Your task to perform on an android device: Open wifi settings Image 0: 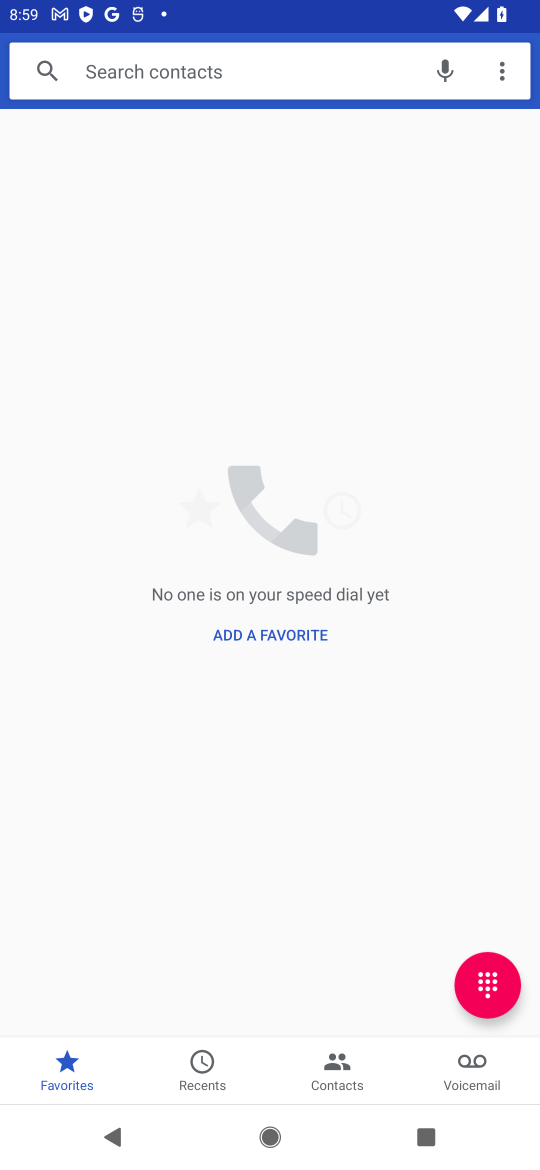
Step 0: press home button
Your task to perform on an android device: Open wifi settings Image 1: 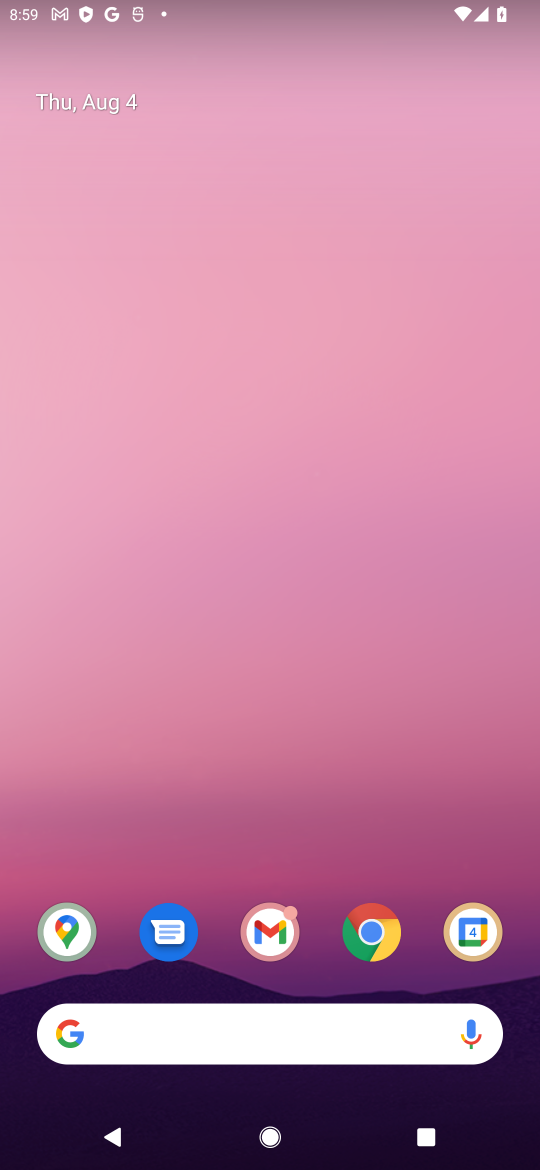
Step 1: drag from (303, 702) to (345, 66)
Your task to perform on an android device: Open wifi settings Image 2: 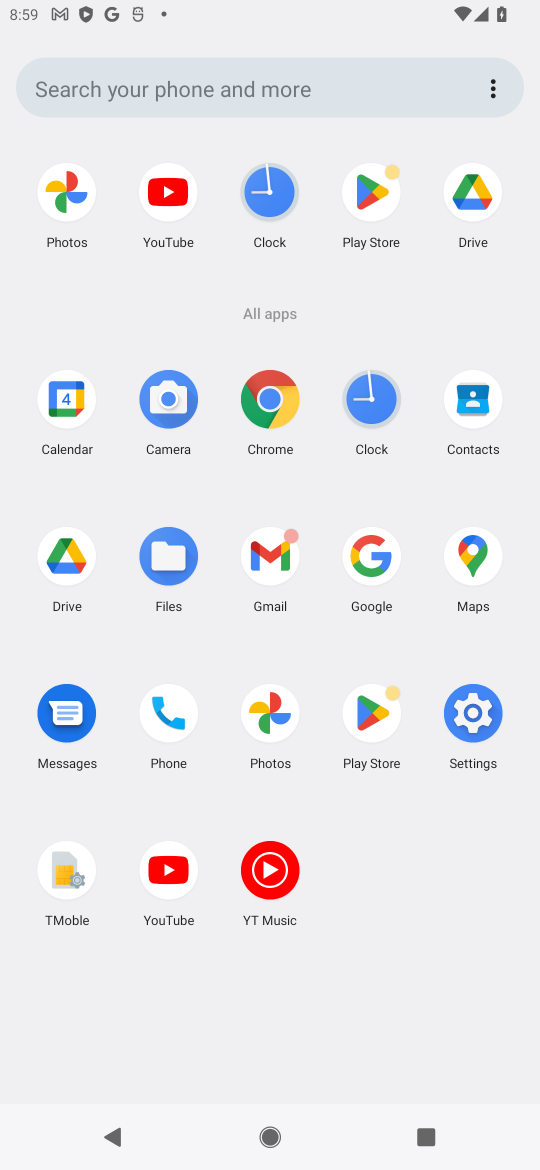
Step 2: click (471, 714)
Your task to perform on an android device: Open wifi settings Image 3: 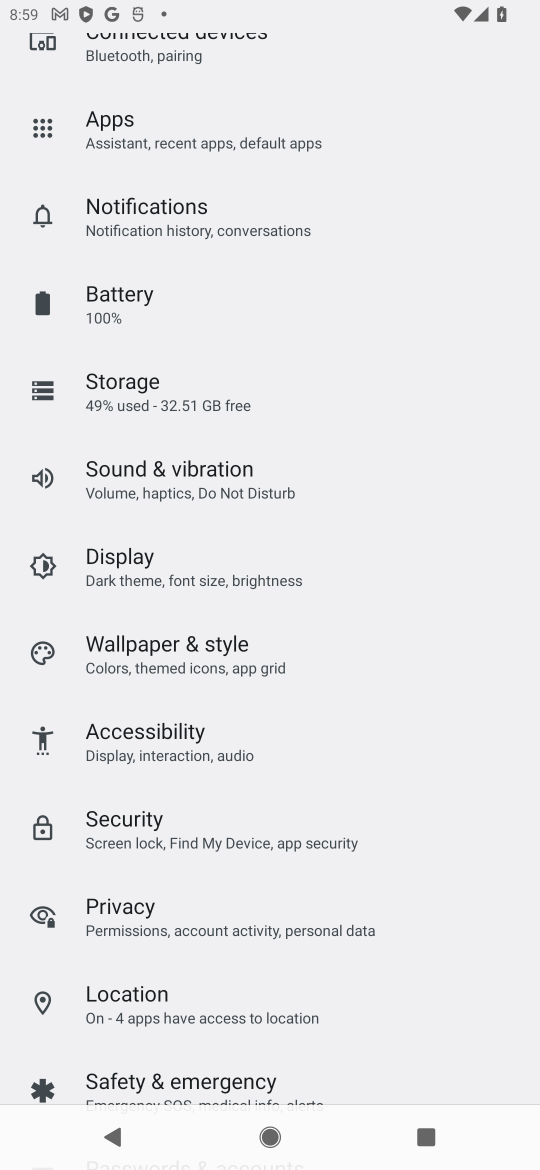
Step 3: drag from (271, 364) to (233, 642)
Your task to perform on an android device: Open wifi settings Image 4: 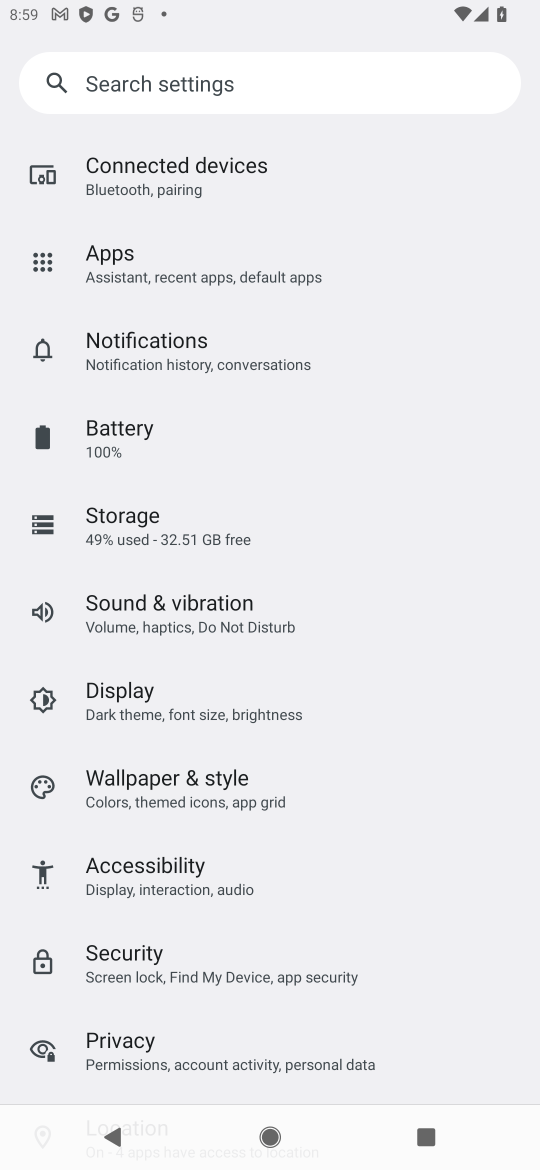
Step 4: drag from (285, 259) to (207, 729)
Your task to perform on an android device: Open wifi settings Image 5: 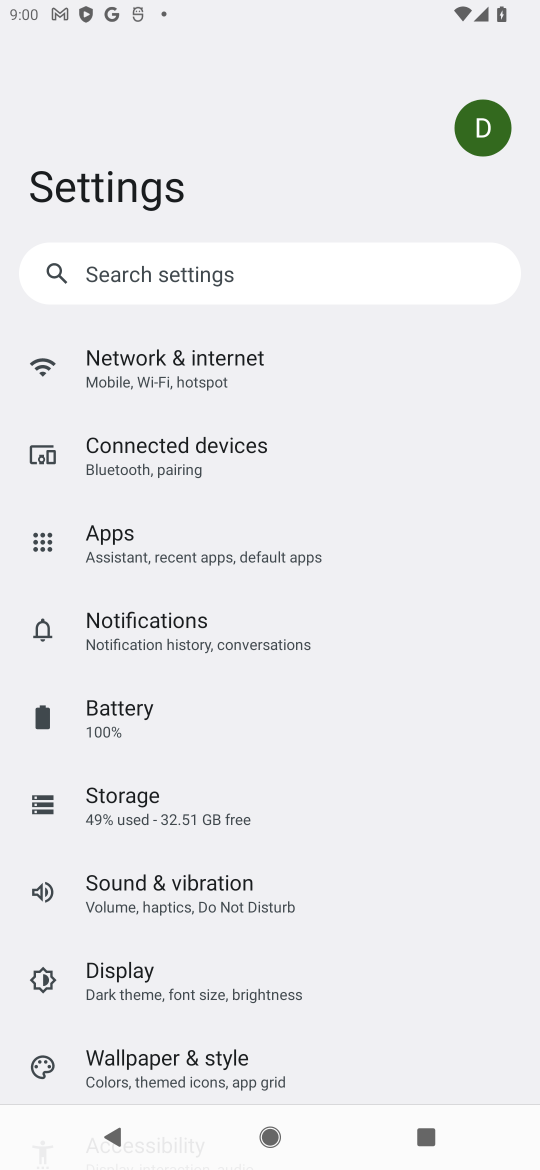
Step 5: click (207, 380)
Your task to perform on an android device: Open wifi settings Image 6: 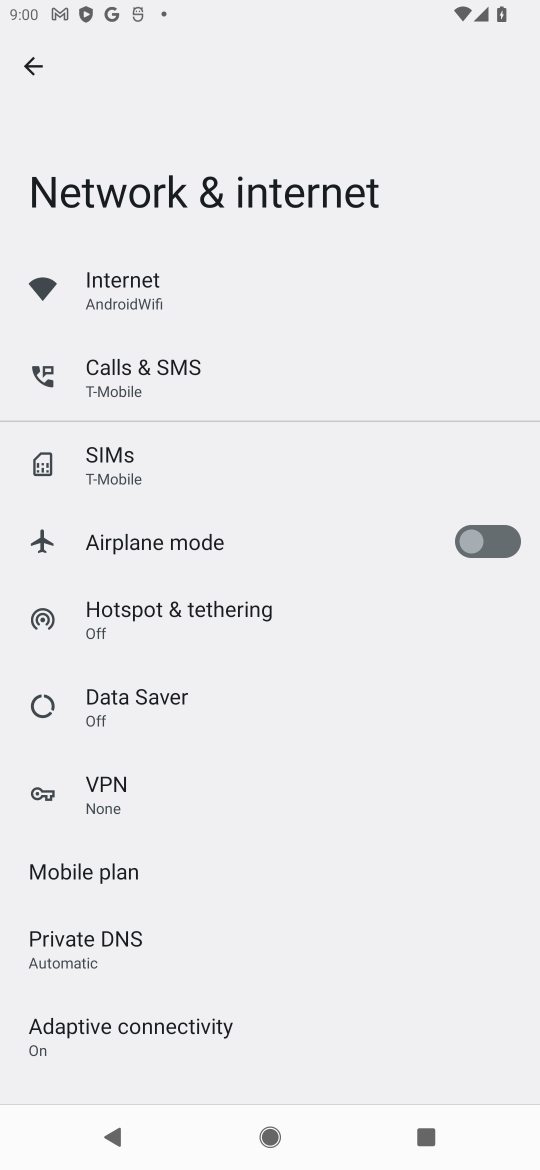
Step 6: click (150, 290)
Your task to perform on an android device: Open wifi settings Image 7: 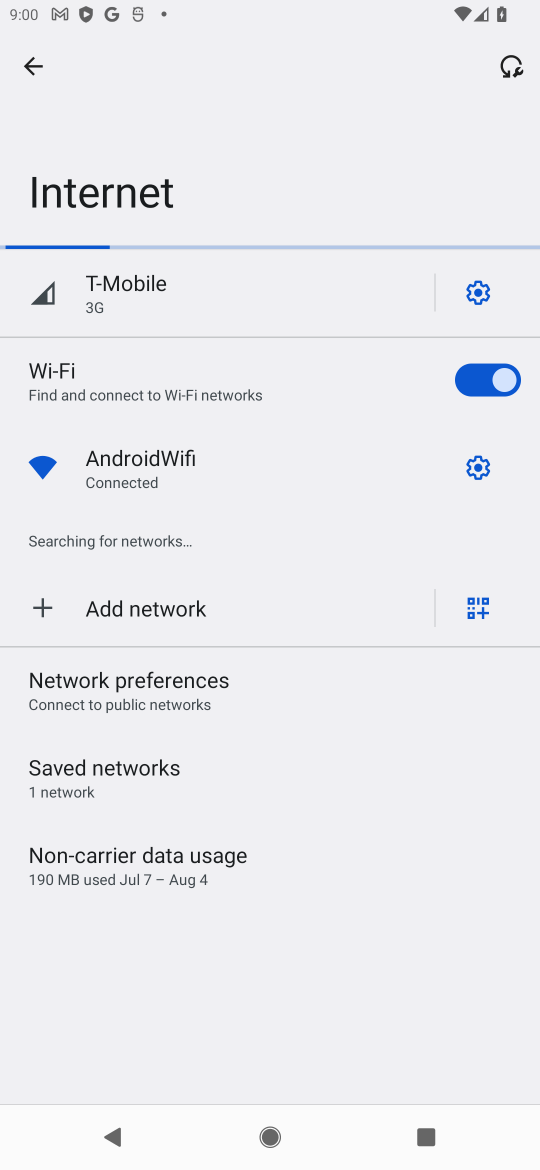
Step 7: click (167, 467)
Your task to perform on an android device: Open wifi settings Image 8: 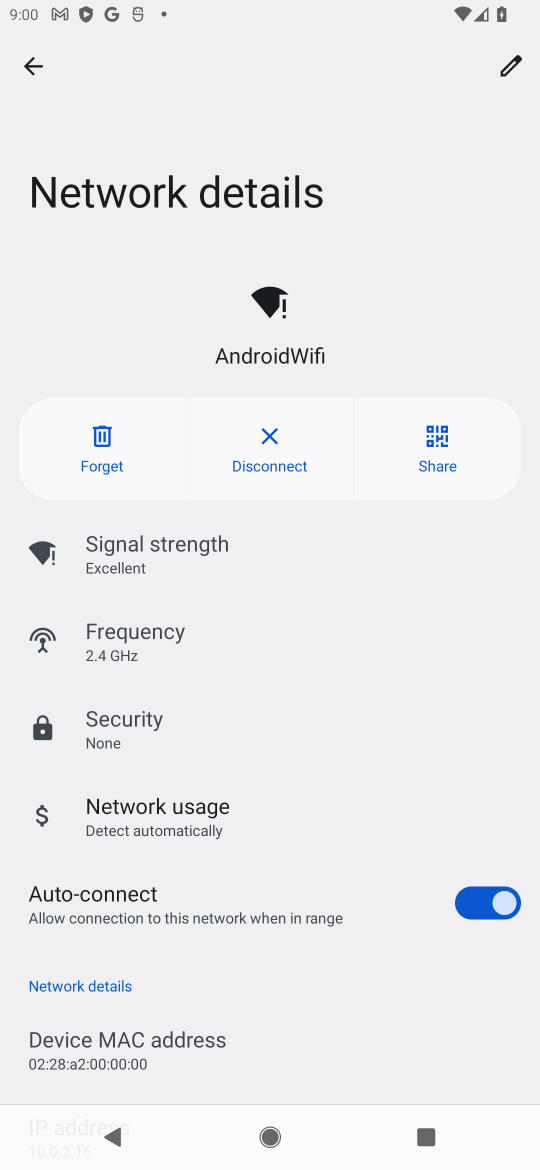
Step 8: task complete